Your task to perform on an android device: Open Chrome and go to settings Image 0: 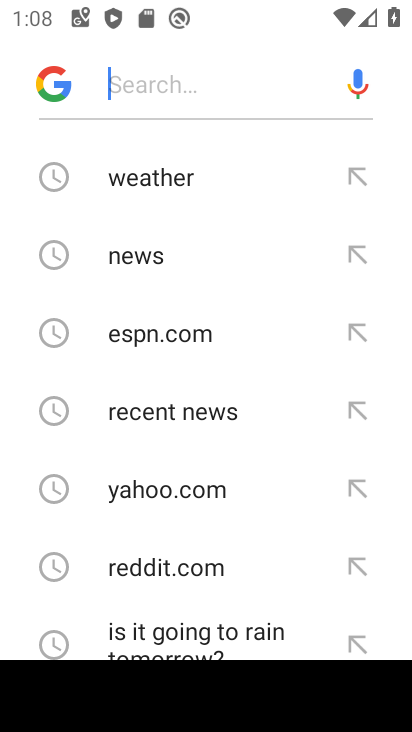
Step 0: press home button
Your task to perform on an android device: Open Chrome and go to settings Image 1: 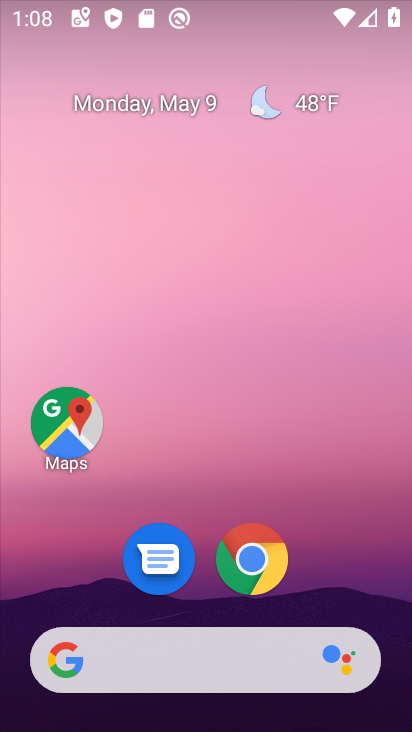
Step 1: drag from (312, 575) to (335, 300)
Your task to perform on an android device: Open Chrome and go to settings Image 2: 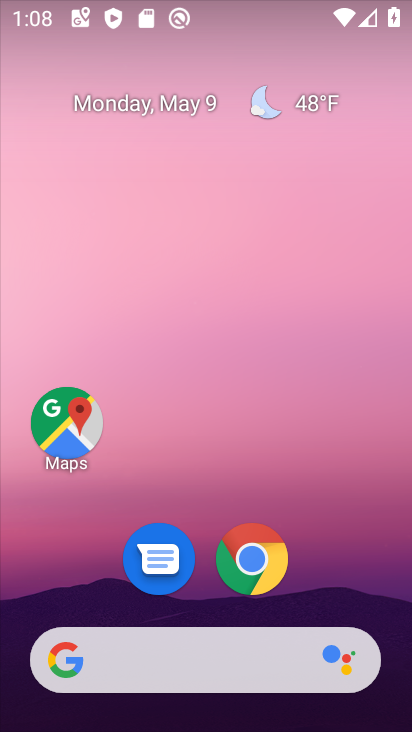
Step 2: click (240, 525)
Your task to perform on an android device: Open Chrome and go to settings Image 3: 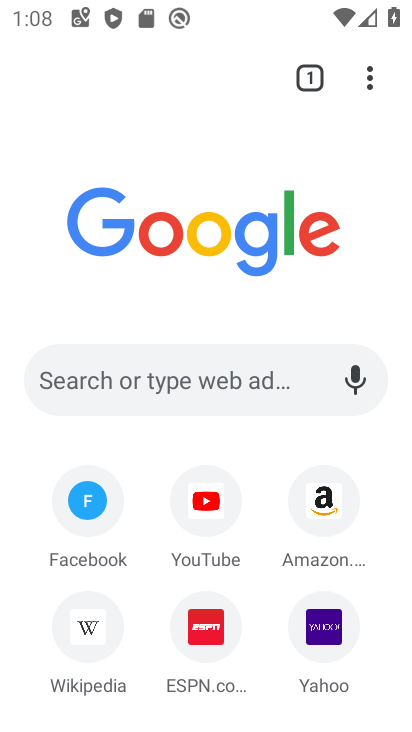
Step 3: click (366, 72)
Your task to perform on an android device: Open Chrome and go to settings Image 4: 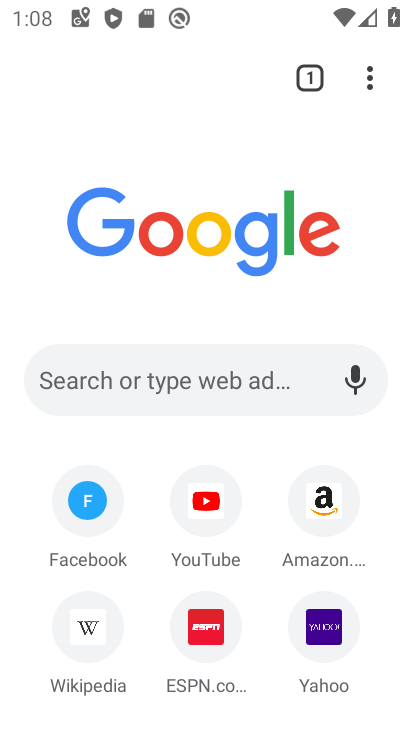
Step 4: click (347, 83)
Your task to perform on an android device: Open Chrome and go to settings Image 5: 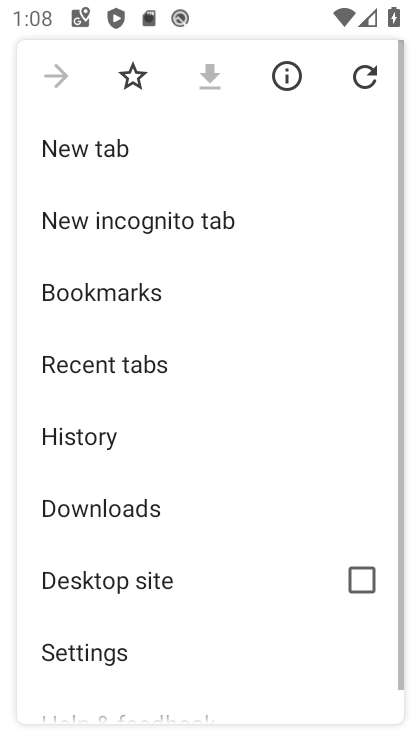
Step 5: drag from (137, 615) to (156, 458)
Your task to perform on an android device: Open Chrome and go to settings Image 6: 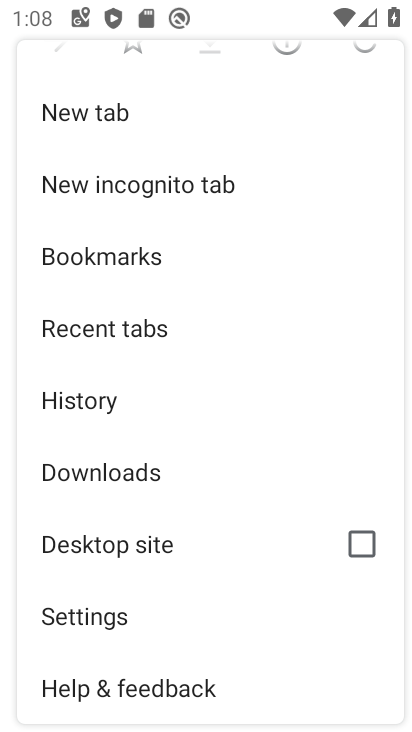
Step 6: click (142, 612)
Your task to perform on an android device: Open Chrome and go to settings Image 7: 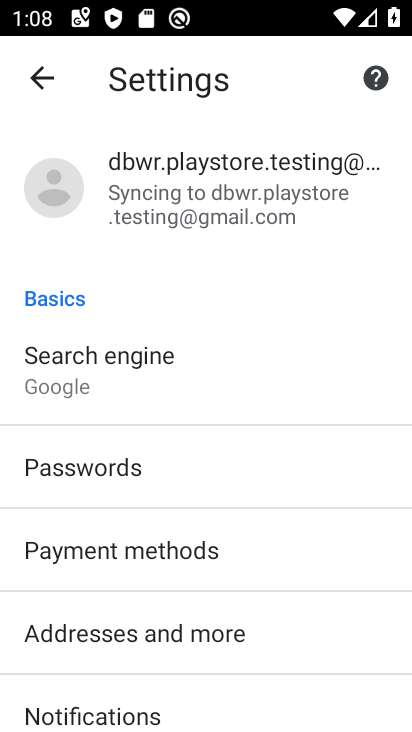
Step 7: task complete